Your task to perform on an android device: Open Amazon Image 0: 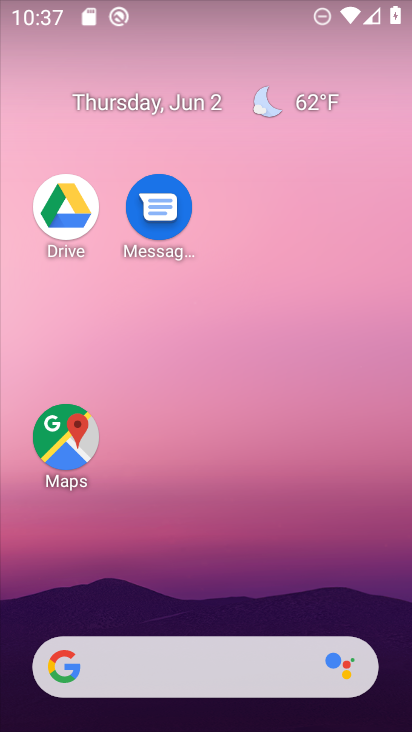
Step 0: drag from (222, 630) to (96, 174)
Your task to perform on an android device: Open Amazon Image 1: 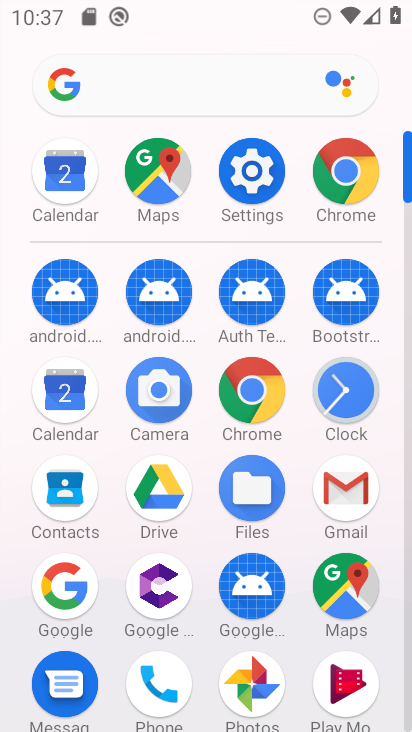
Step 1: click (333, 183)
Your task to perform on an android device: Open Amazon Image 2: 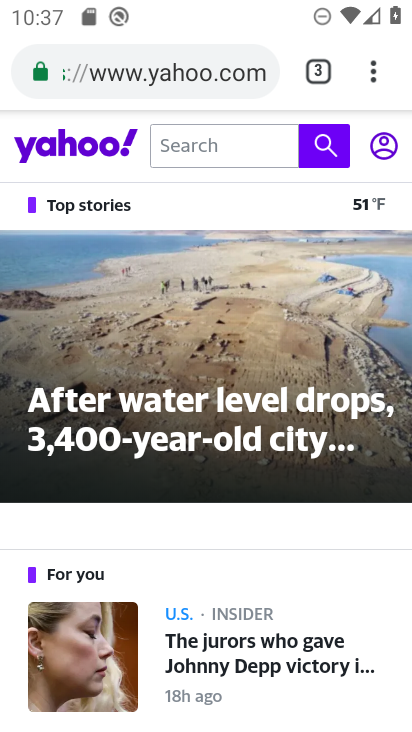
Step 2: click (311, 47)
Your task to perform on an android device: Open Amazon Image 3: 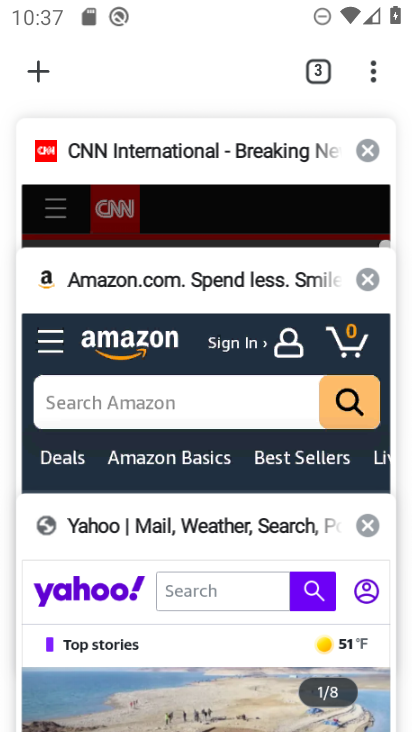
Step 3: click (253, 400)
Your task to perform on an android device: Open Amazon Image 4: 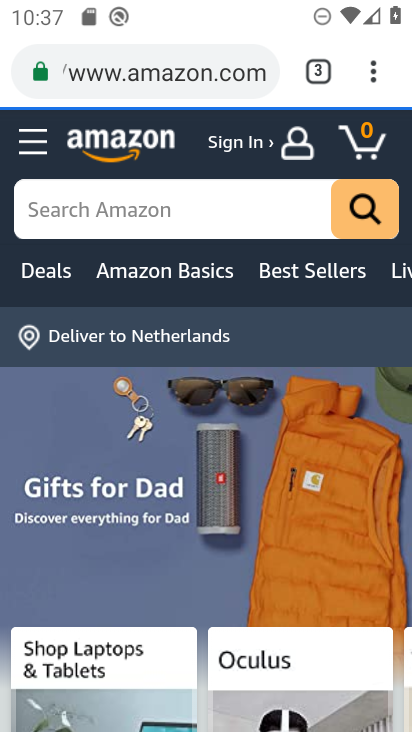
Step 4: task complete